Your task to perform on an android device: toggle priority inbox in the gmail app Image 0: 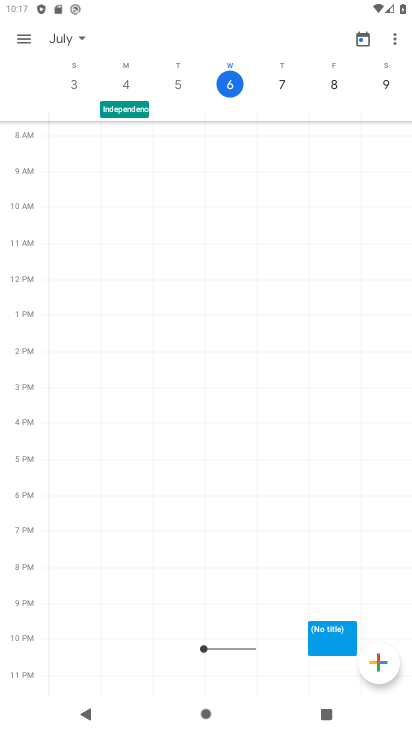
Step 0: press home button
Your task to perform on an android device: toggle priority inbox in the gmail app Image 1: 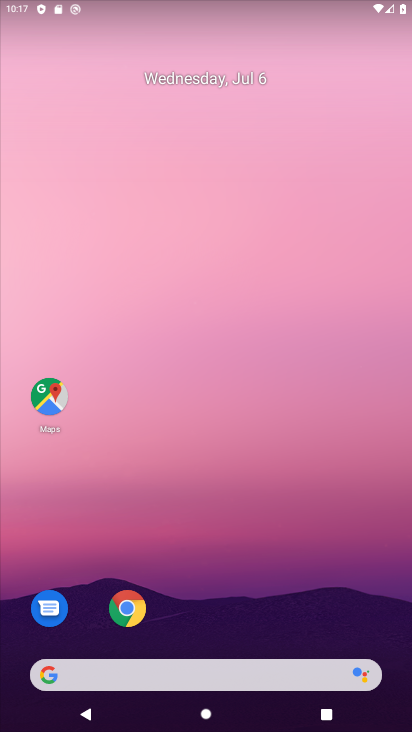
Step 1: drag from (229, 639) to (104, 54)
Your task to perform on an android device: toggle priority inbox in the gmail app Image 2: 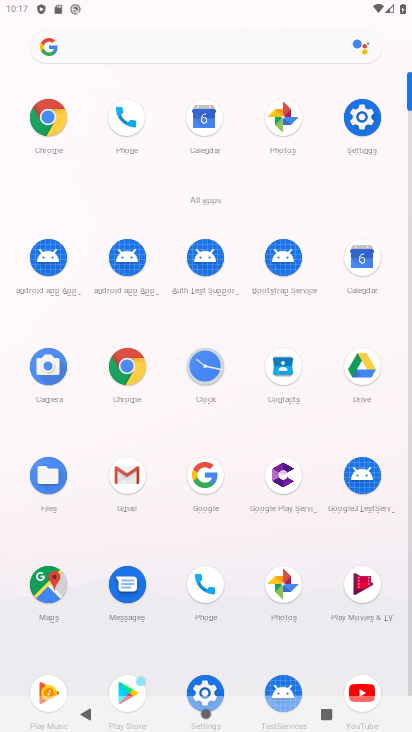
Step 2: click (130, 476)
Your task to perform on an android device: toggle priority inbox in the gmail app Image 3: 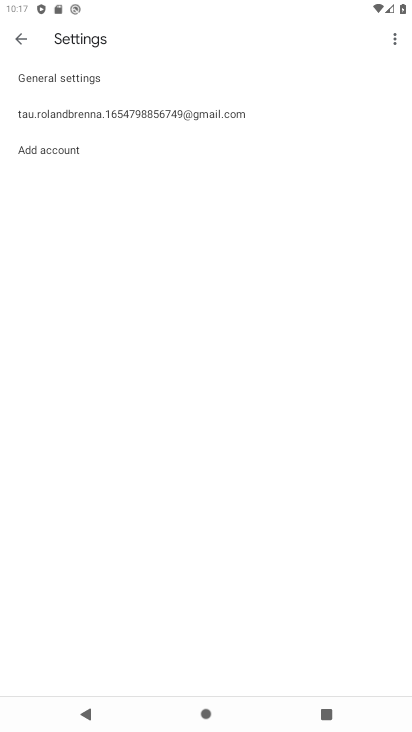
Step 3: click (126, 105)
Your task to perform on an android device: toggle priority inbox in the gmail app Image 4: 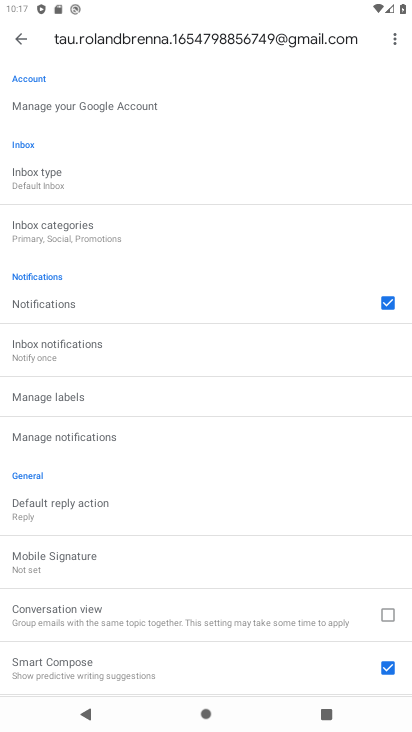
Step 4: drag from (214, 527) to (179, 170)
Your task to perform on an android device: toggle priority inbox in the gmail app Image 5: 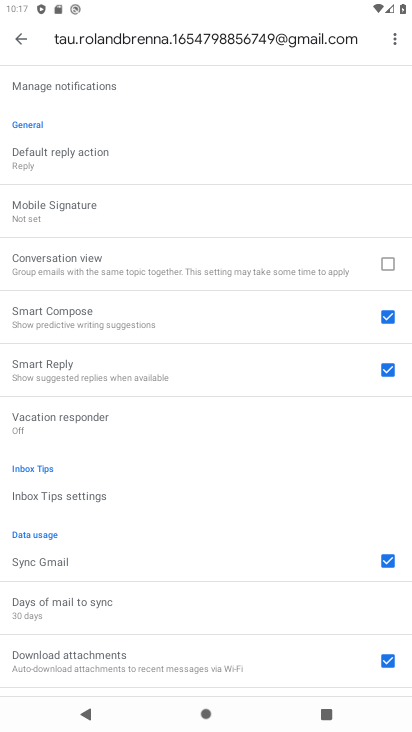
Step 5: drag from (147, 595) to (142, 221)
Your task to perform on an android device: toggle priority inbox in the gmail app Image 6: 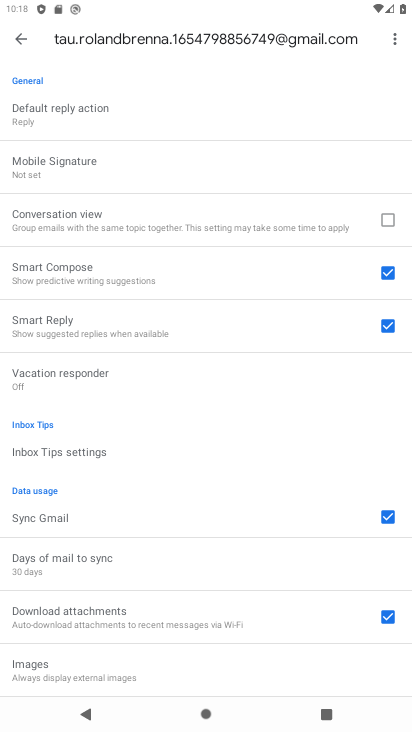
Step 6: drag from (107, 201) to (83, 554)
Your task to perform on an android device: toggle priority inbox in the gmail app Image 7: 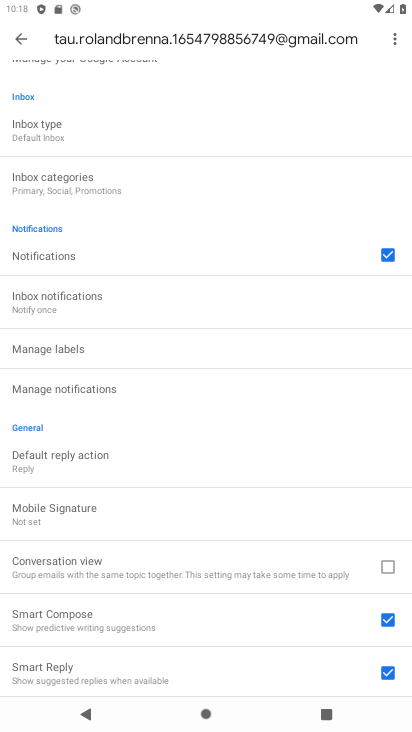
Step 7: click (33, 133)
Your task to perform on an android device: toggle priority inbox in the gmail app Image 8: 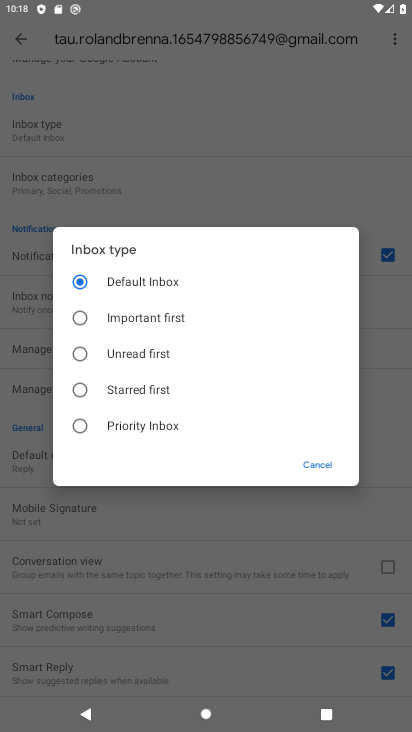
Step 8: click (120, 425)
Your task to perform on an android device: toggle priority inbox in the gmail app Image 9: 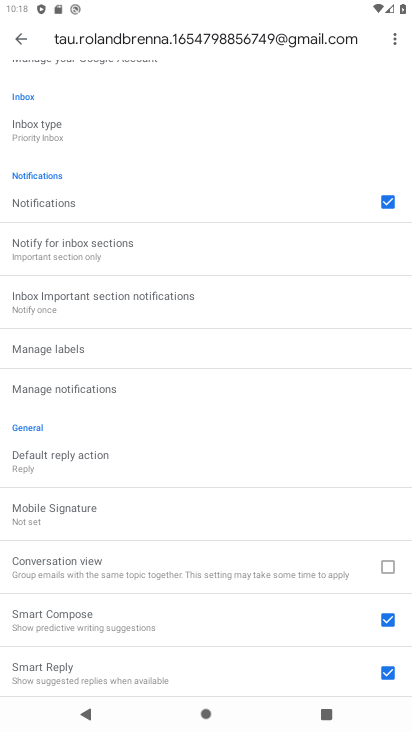
Step 9: task complete